Your task to perform on an android device: Go to eBay Image 0: 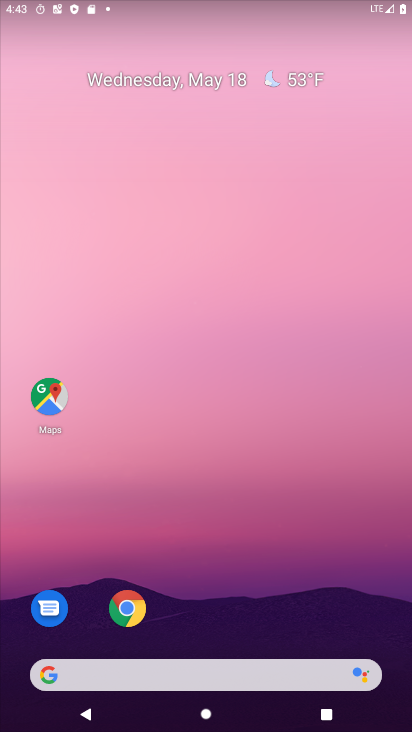
Step 0: drag from (111, 689) to (176, 0)
Your task to perform on an android device: Go to eBay Image 1: 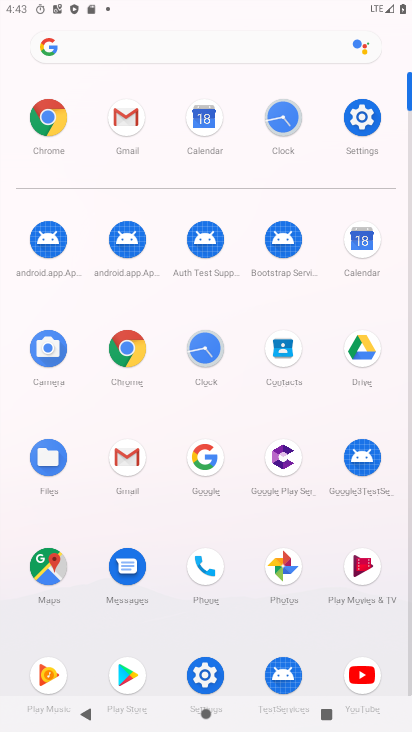
Step 1: click (139, 354)
Your task to perform on an android device: Go to eBay Image 2: 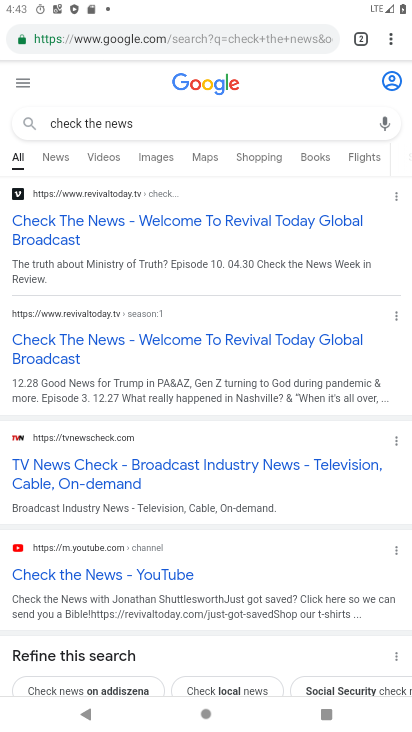
Step 2: click (127, 38)
Your task to perform on an android device: Go to eBay Image 3: 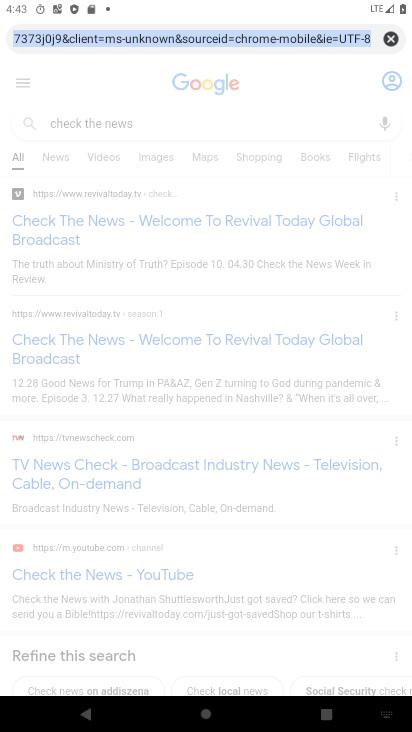
Step 3: click (385, 40)
Your task to perform on an android device: Go to eBay Image 4: 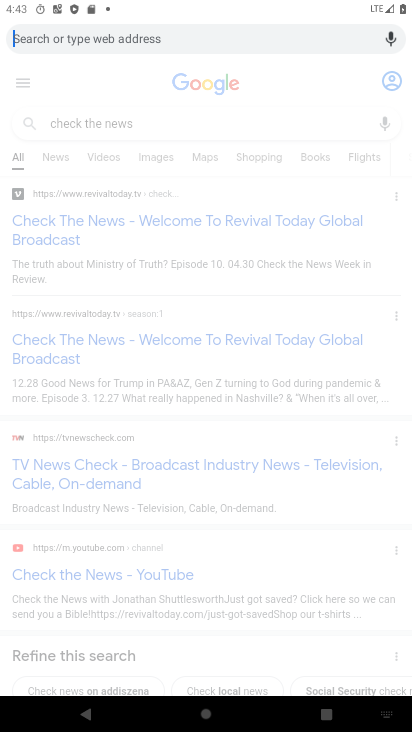
Step 4: type "ebay"
Your task to perform on an android device: Go to eBay Image 5: 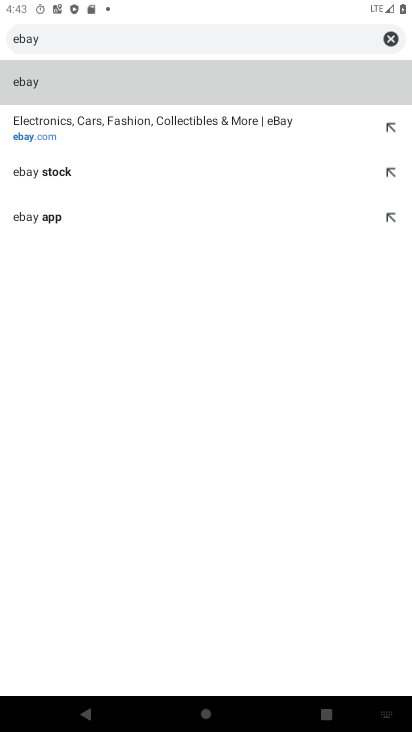
Step 5: click (284, 133)
Your task to perform on an android device: Go to eBay Image 6: 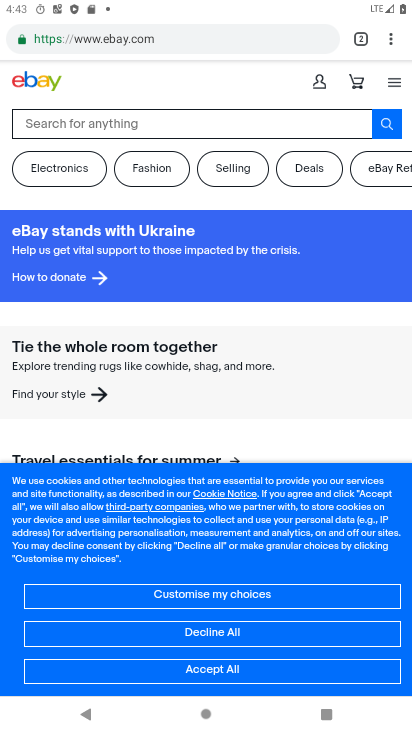
Step 6: task complete